Your task to perform on an android device: What's the weather going to be this weekend? Image 0: 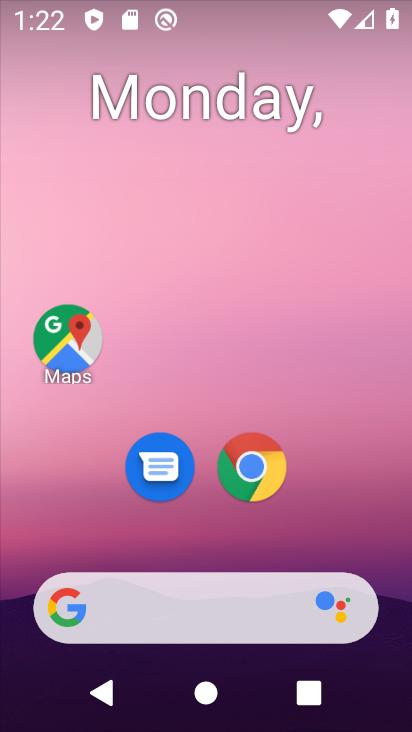
Step 0: drag from (182, 575) to (282, 2)
Your task to perform on an android device: What's the weather going to be this weekend? Image 1: 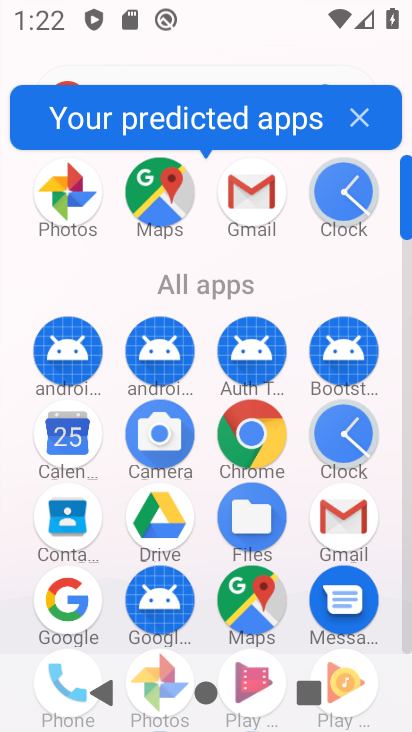
Step 1: drag from (197, 590) to (242, 366)
Your task to perform on an android device: What's the weather going to be this weekend? Image 2: 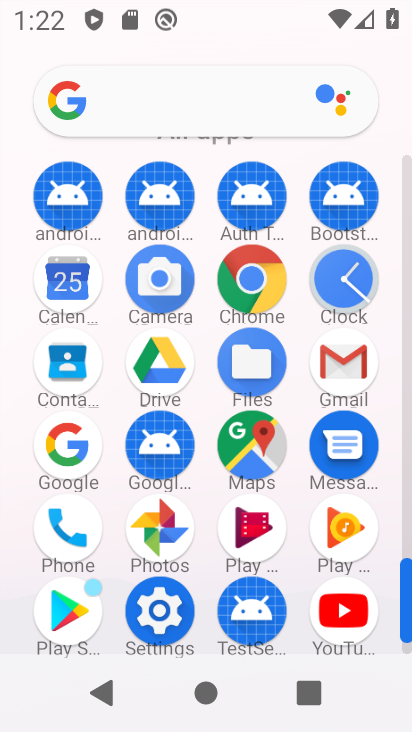
Step 2: click (70, 454)
Your task to perform on an android device: What's the weather going to be this weekend? Image 3: 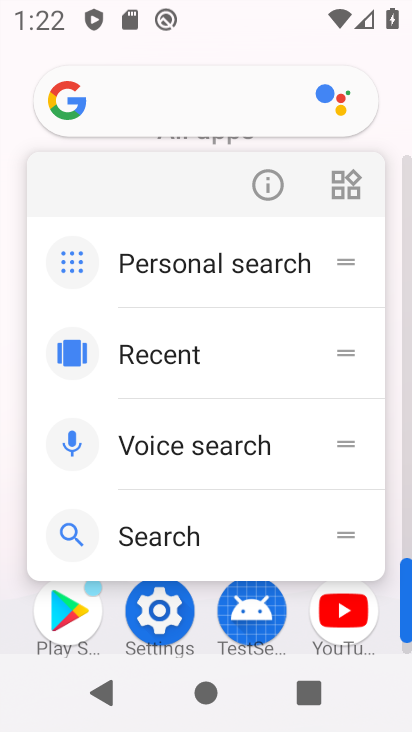
Step 3: click (72, 460)
Your task to perform on an android device: What's the weather going to be this weekend? Image 4: 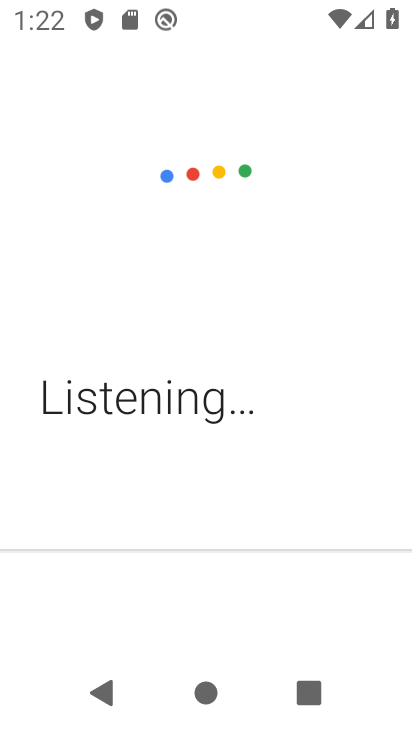
Step 4: press back button
Your task to perform on an android device: What's the weather going to be this weekend? Image 5: 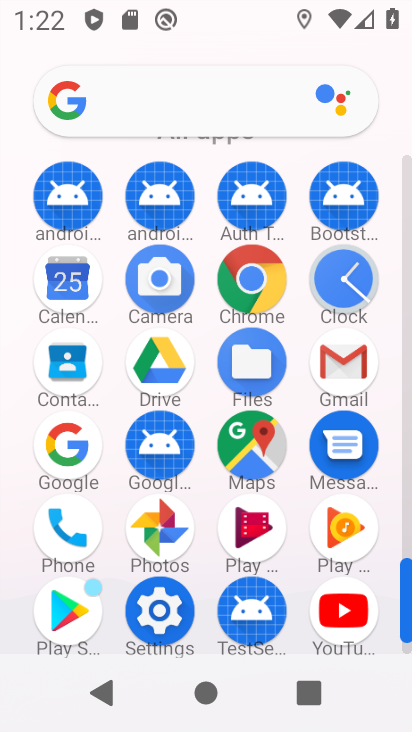
Step 5: click (57, 462)
Your task to perform on an android device: What's the weather going to be this weekend? Image 6: 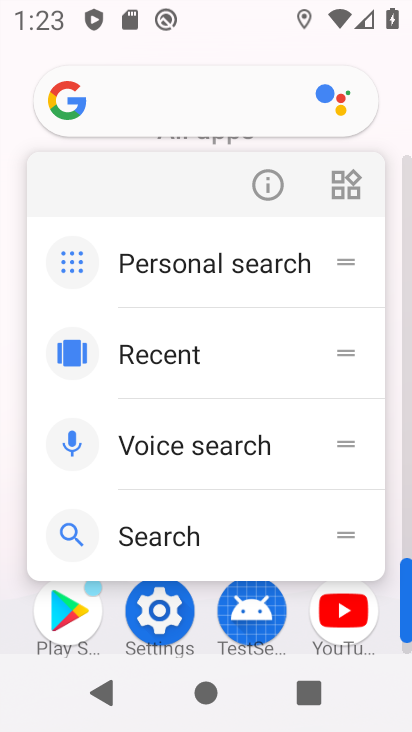
Step 6: press back button
Your task to perform on an android device: What's the weather going to be this weekend? Image 7: 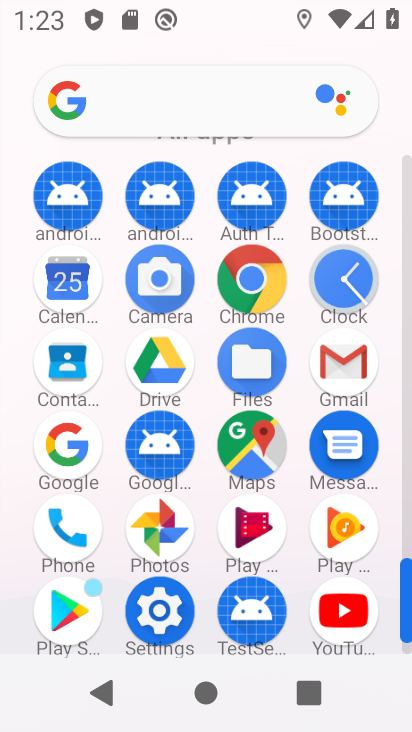
Step 7: click (64, 445)
Your task to perform on an android device: What's the weather going to be this weekend? Image 8: 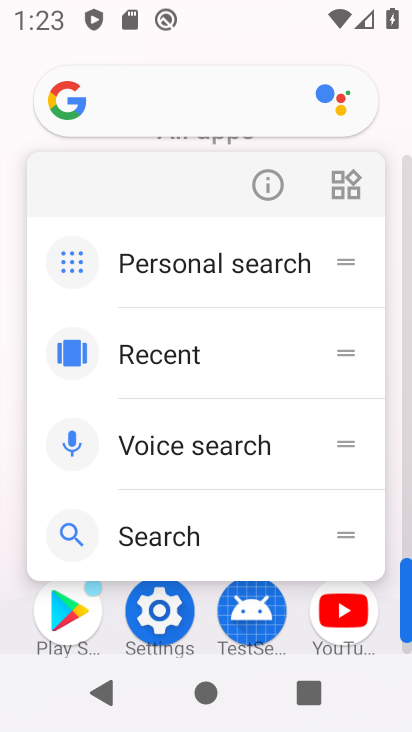
Step 8: press back button
Your task to perform on an android device: What's the weather going to be this weekend? Image 9: 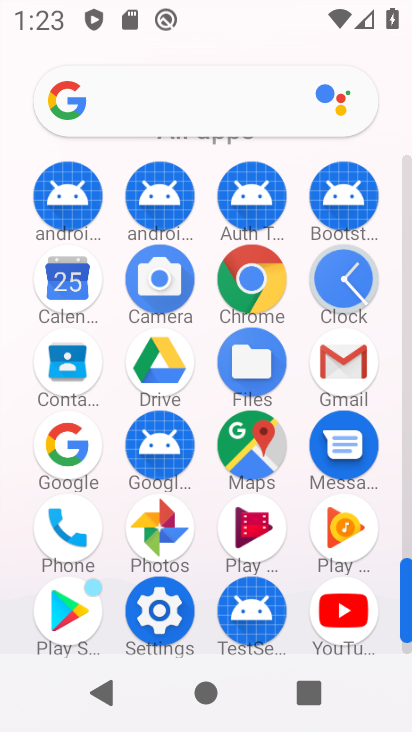
Step 9: click (81, 449)
Your task to perform on an android device: What's the weather going to be this weekend? Image 10: 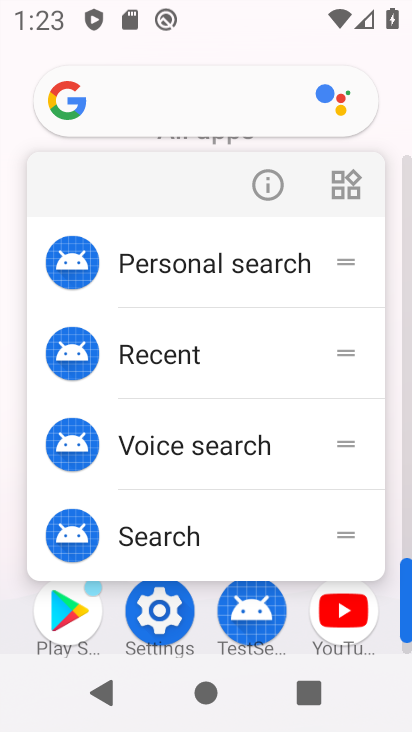
Step 10: press back button
Your task to perform on an android device: What's the weather going to be this weekend? Image 11: 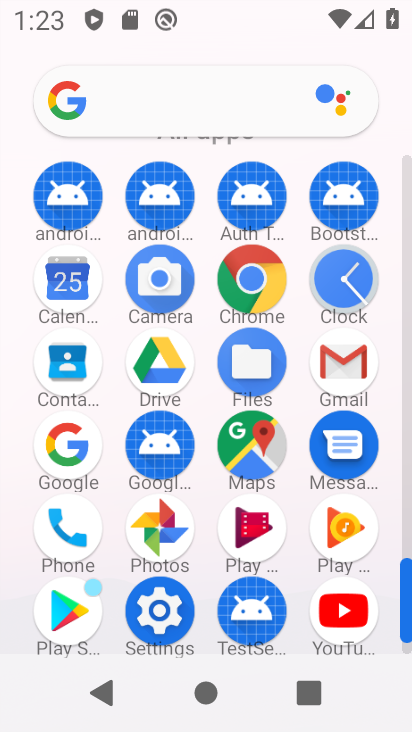
Step 11: click (98, 451)
Your task to perform on an android device: What's the weather going to be this weekend? Image 12: 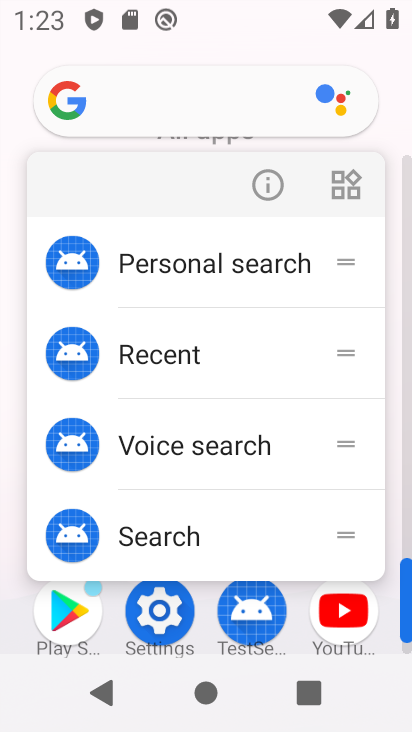
Step 12: press back button
Your task to perform on an android device: What's the weather going to be this weekend? Image 13: 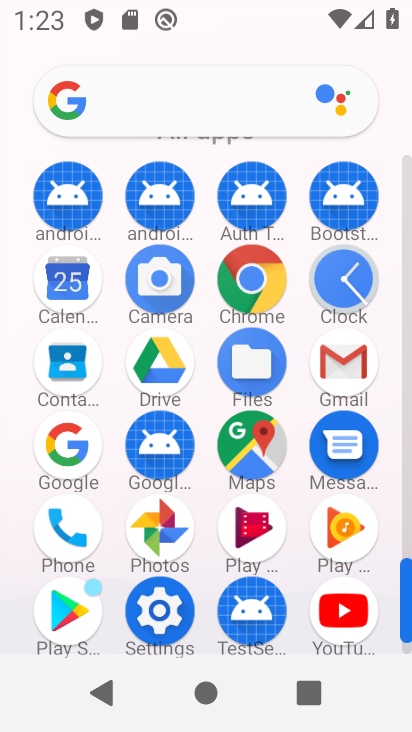
Step 13: click (62, 453)
Your task to perform on an android device: What's the weather going to be this weekend? Image 14: 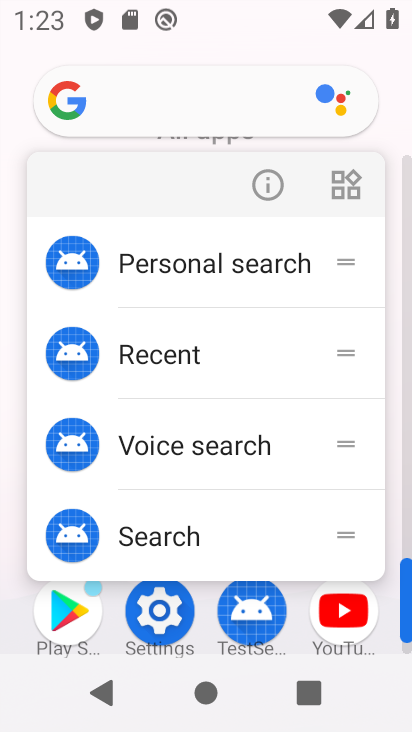
Step 14: press back button
Your task to perform on an android device: What's the weather going to be this weekend? Image 15: 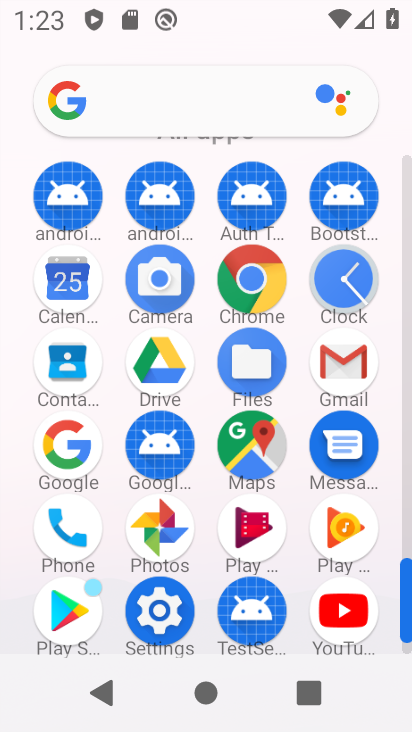
Step 15: click (67, 449)
Your task to perform on an android device: What's the weather going to be this weekend? Image 16: 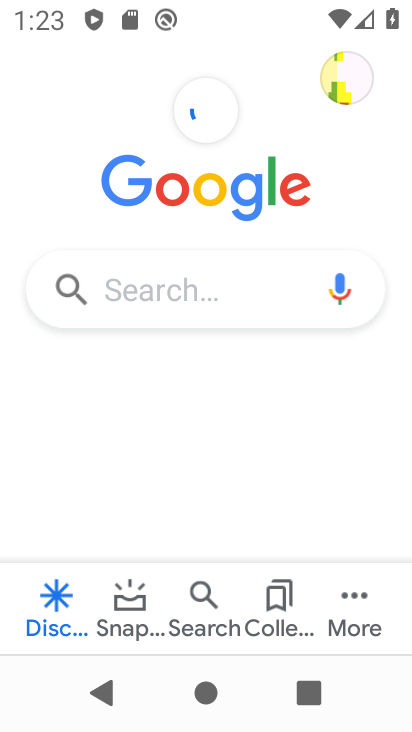
Step 16: click (210, 298)
Your task to perform on an android device: What's the weather going to be this weekend? Image 17: 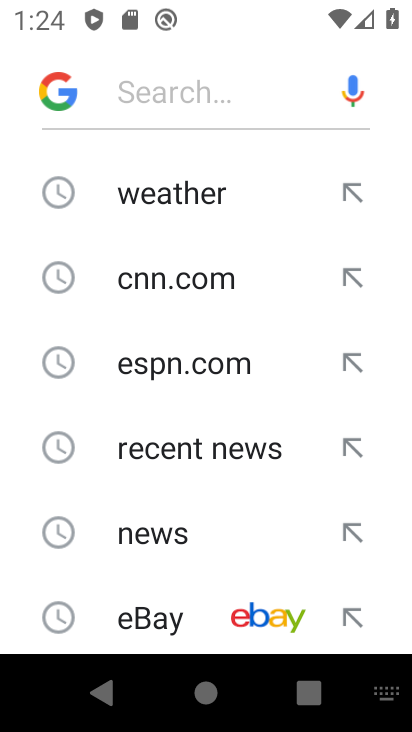
Step 17: click (234, 216)
Your task to perform on an android device: What's the weather going to be this weekend? Image 18: 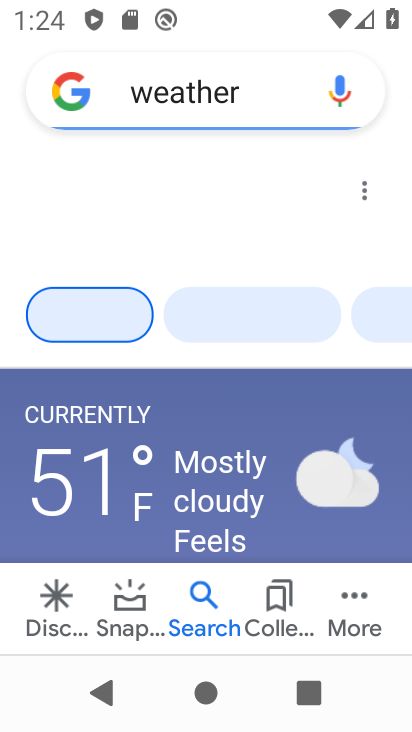
Step 18: click (255, 91)
Your task to perform on an android device: What's the weather going to be this weekend? Image 19: 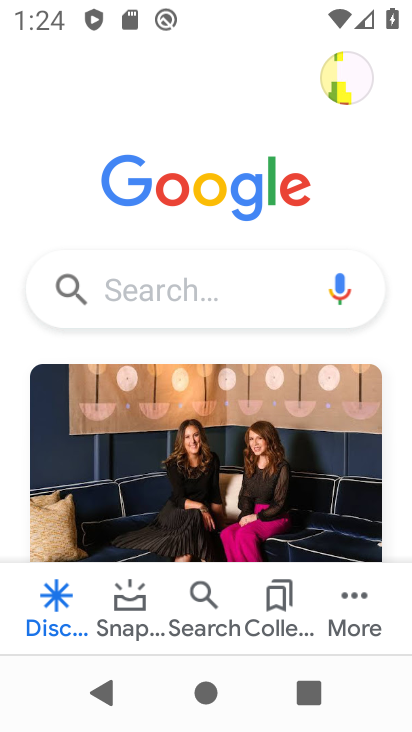
Step 19: click (197, 309)
Your task to perform on an android device: What's the weather going to be this weekend? Image 20: 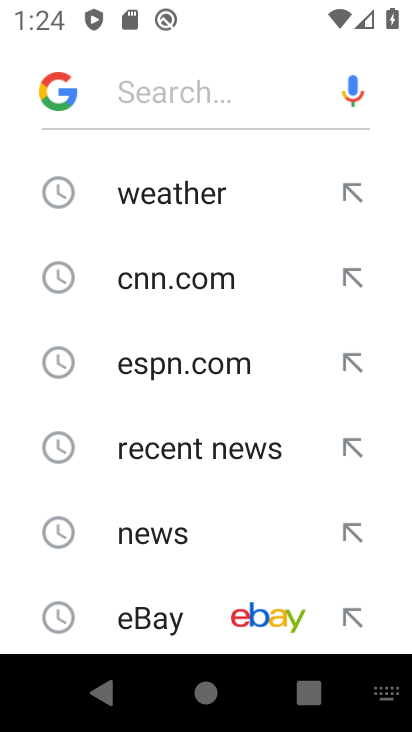
Step 20: type "weather for weekend "
Your task to perform on an android device: What's the weather going to be this weekend? Image 21: 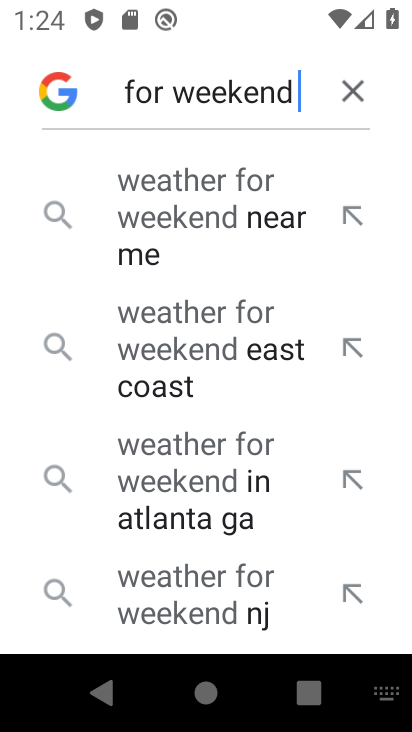
Step 21: click (199, 251)
Your task to perform on an android device: What's the weather going to be this weekend? Image 22: 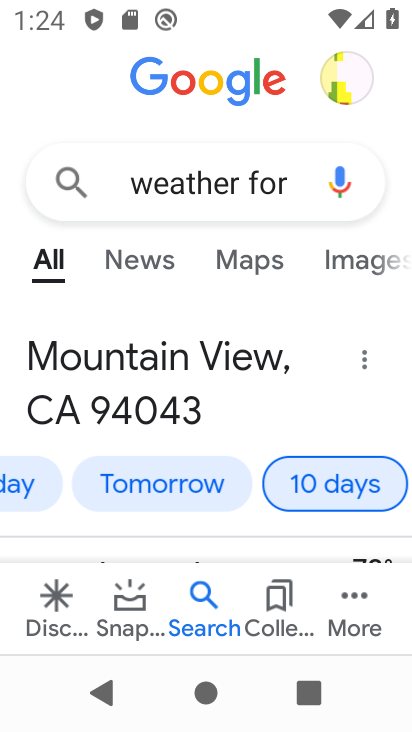
Step 22: task complete